Your task to perform on an android device: Search for "asus zenbook" on costco, select the first entry, and add it to the cart. Image 0: 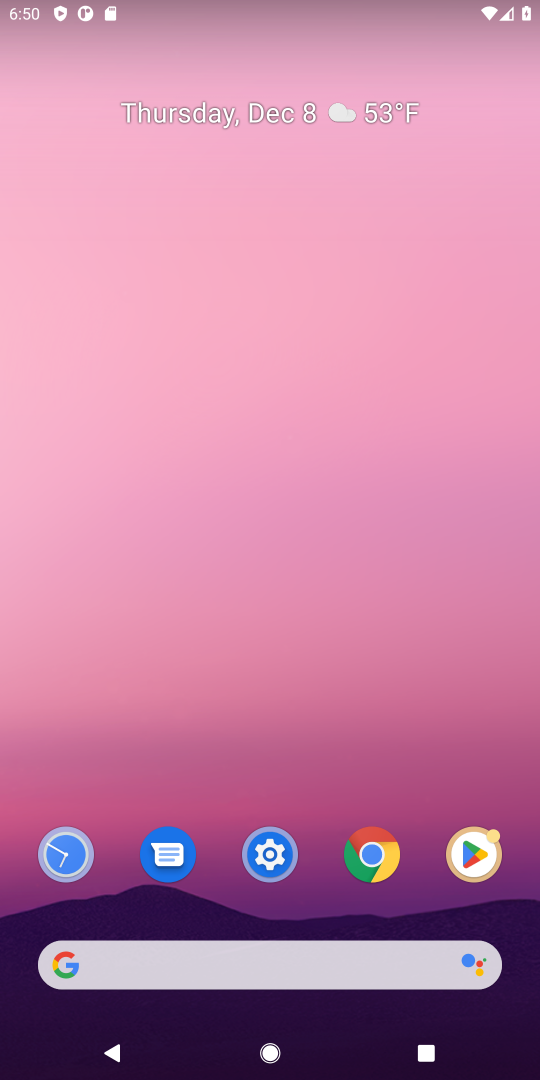
Step 0: press home button
Your task to perform on an android device: Search for "asus zenbook" on costco, select the first entry, and add it to the cart. Image 1: 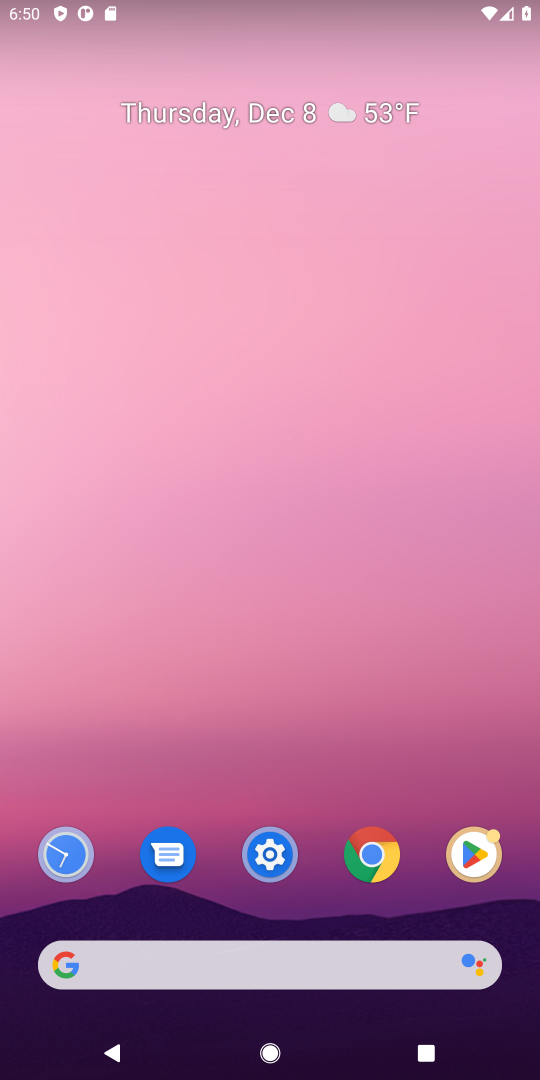
Step 1: click (83, 958)
Your task to perform on an android device: Search for "asus zenbook" on costco, select the first entry, and add it to the cart. Image 2: 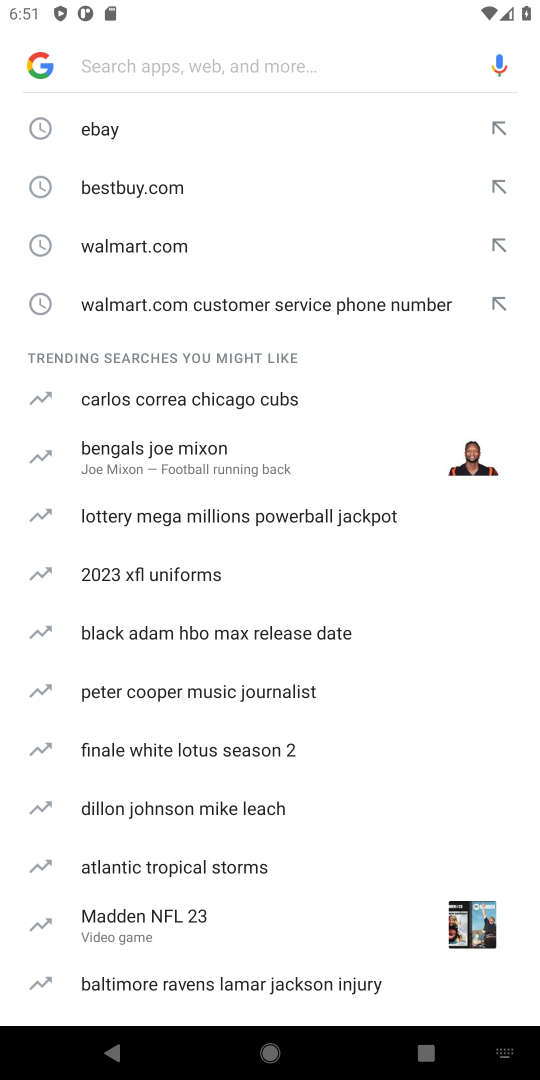
Step 2: type "costco"
Your task to perform on an android device: Search for "asus zenbook" on costco, select the first entry, and add it to the cart. Image 3: 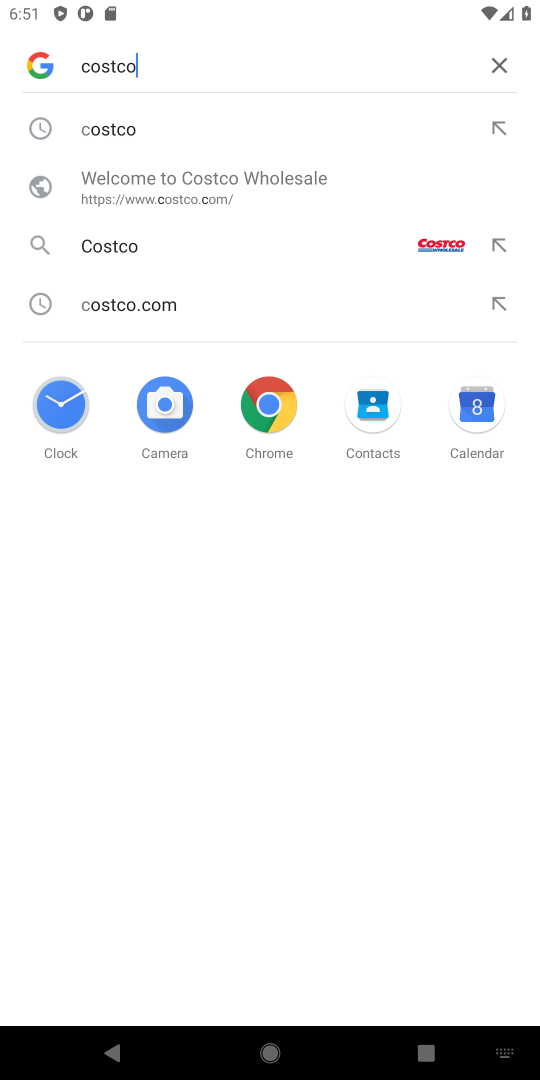
Step 3: press enter
Your task to perform on an android device: Search for "asus zenbook" on costco, select the first entry, and add it to the cart. Image 4: 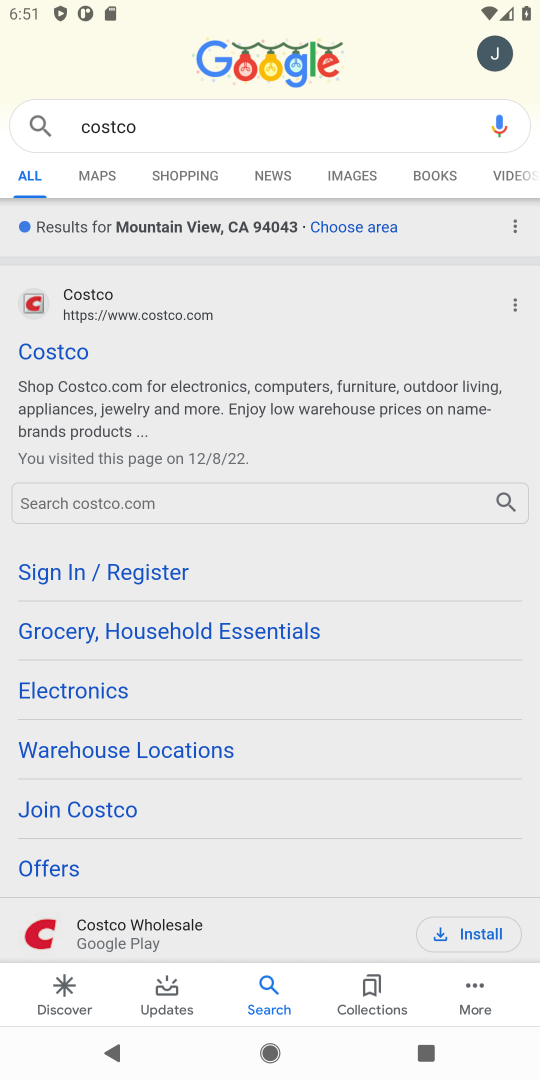
Step 4: click (51, 345)
Your task to perform on an android device: Search for "asus zenbook" on costco, select the first entry, and add it to the cart. Image 5: 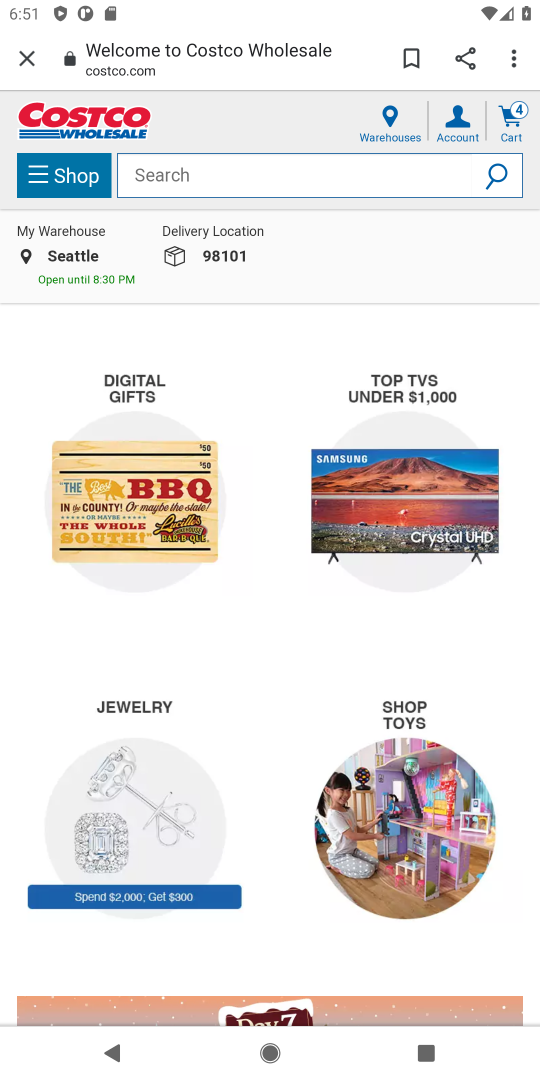
Step 5: click (160, 170)
Your task to perform on an android device: Search for "asus zenbook" on costco, select the first entry, and add it to the cart. Image 6: 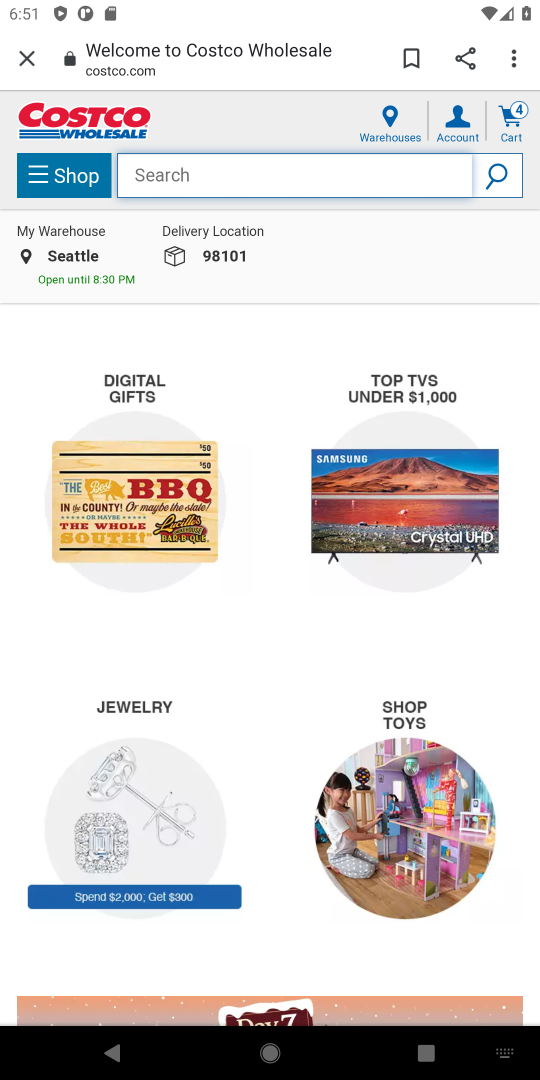
Step 6: type "asus zenbook"
Your task to perform on an android device: Search for "asus zenbook" on costco, select the first entry, and add it to the cart. Image 7: 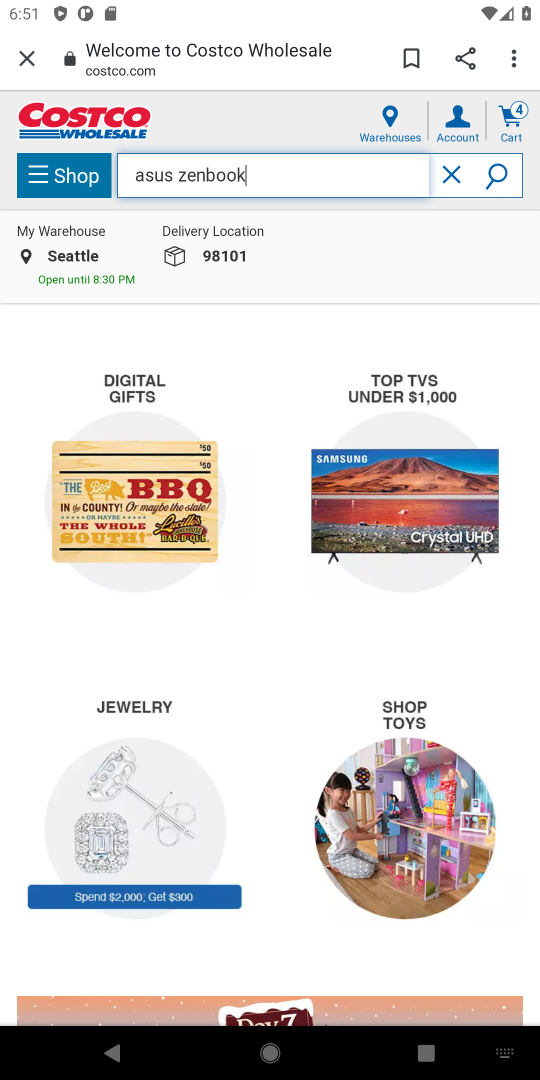
Step 7: press enter
Your task to perform on an android device: Search for "asus zenbook" on costco, select the first entry, and add it to the cart. Image 8: 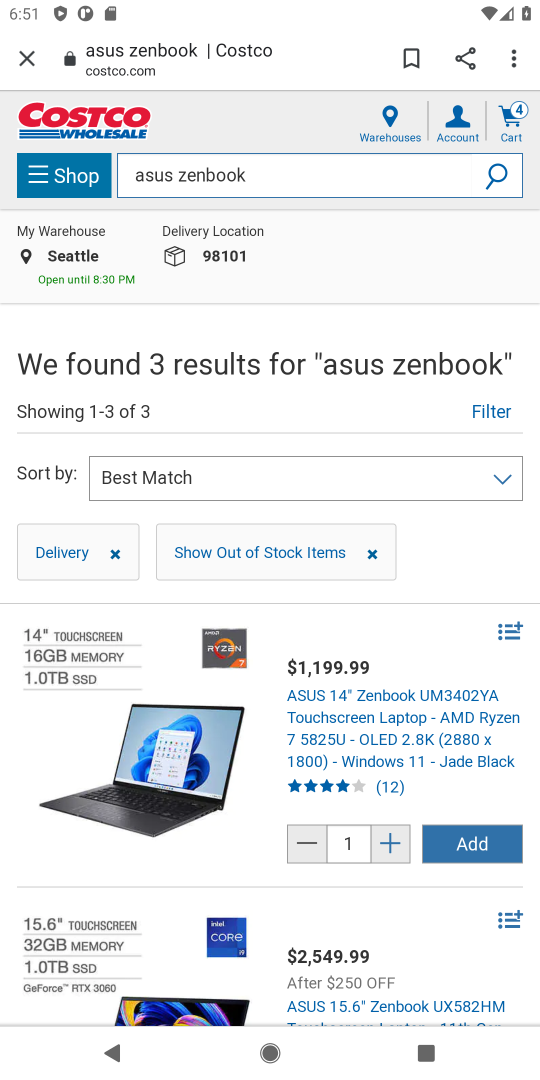
Step 8: click (472, 841)
Your task to perform on an android device: Search for "asus zenbook" on costco, select the first entry, and add it to the cart. Image 9: 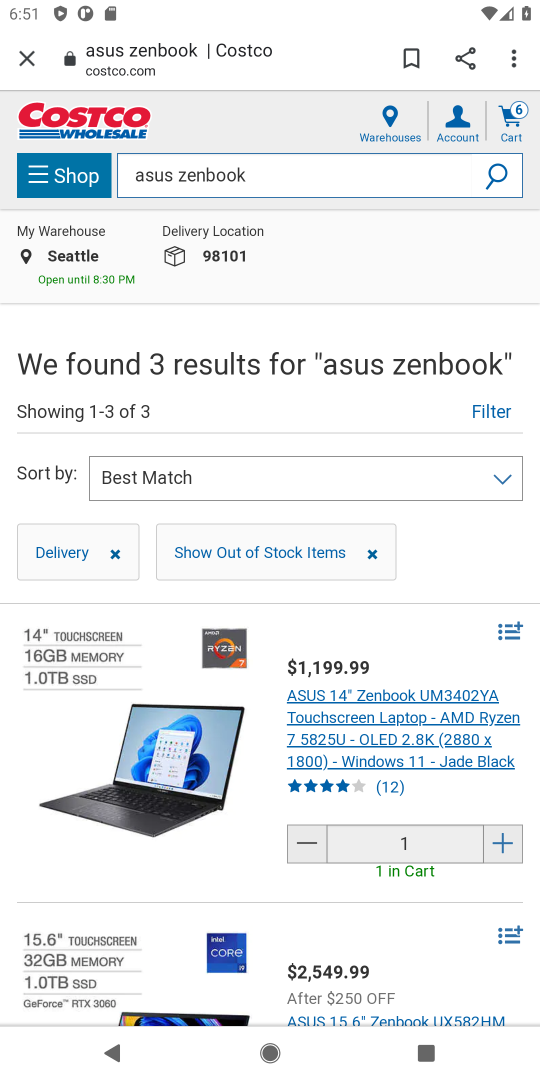
Step 9: task complete